Your task to perform on an android device: toggle notification dots Image 0: 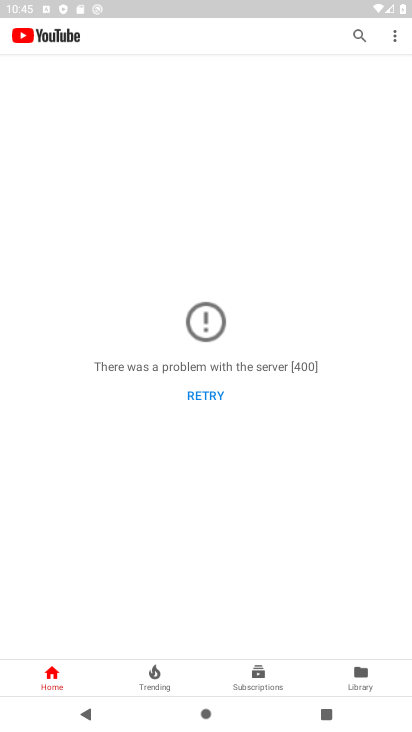
Step 0: task complete